Your task to perform on an android device: check google app version Image 0: 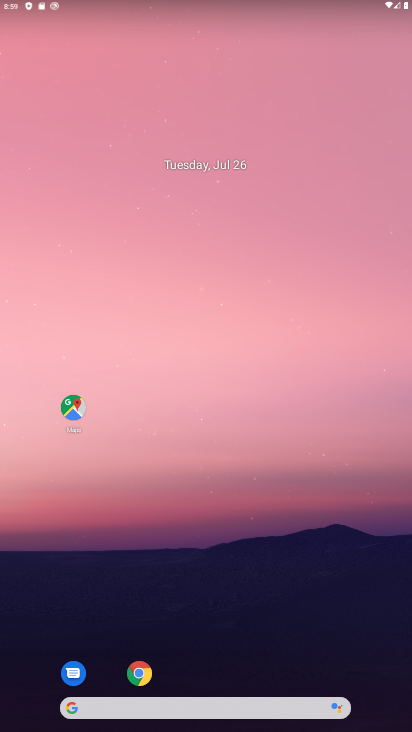
Step 0: drag from (210, 585) to (254, 66)
Your task to perform on an android device: check google app version Image 1: 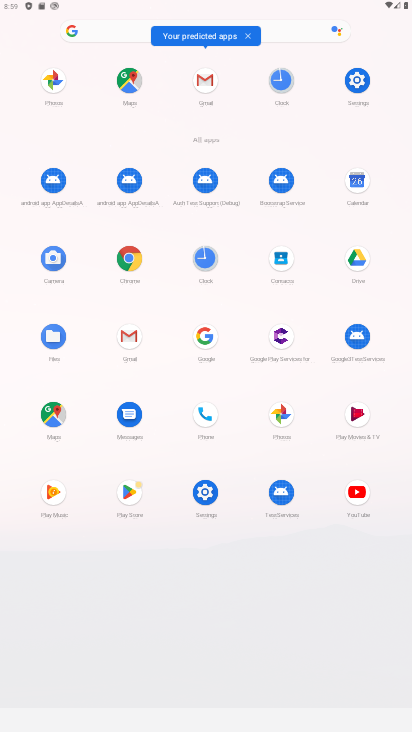
Step 1: click (213, 337)
Your task to perform on an android device: check google app version Image 2: 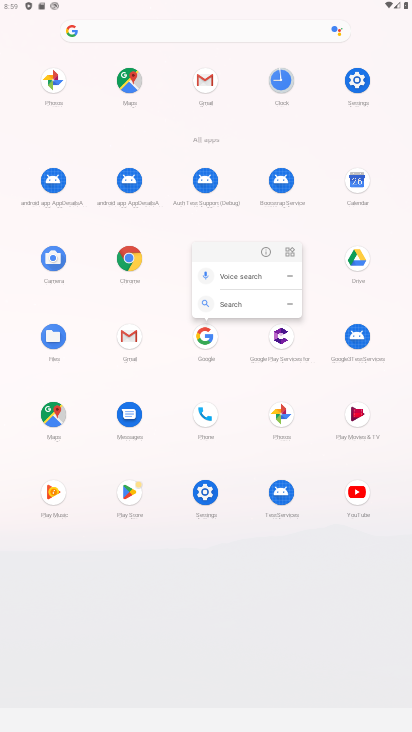
Step 2: click (264, 248)
Your task to perform on an android device: check google app version Image 3: 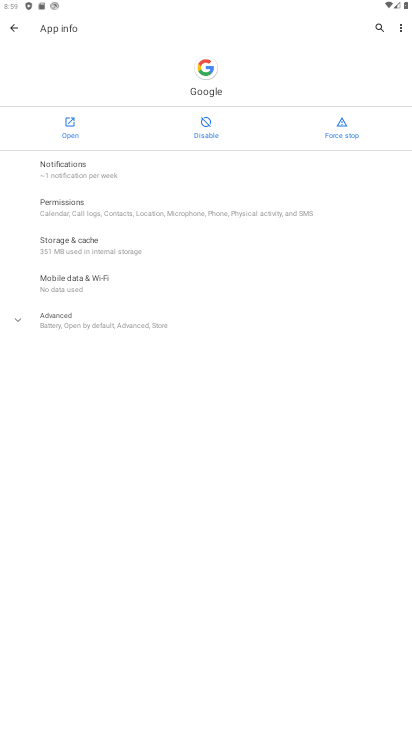
Step 3: click (19, 325)
Your task to perform on an android device: check google app version Image 4: 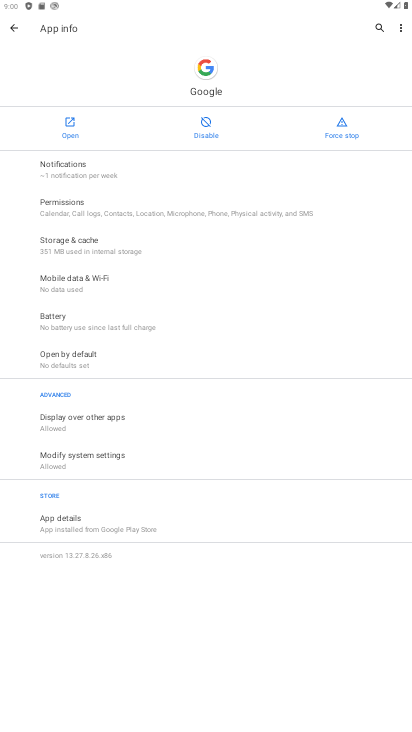
Step 4: task complete